Your task to perform on an android device: Show me popular games on the Play Store Image 0: 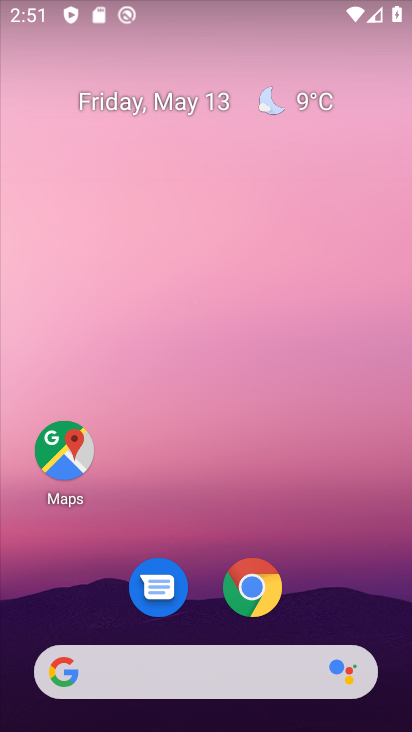
Step 0: drag from (338, 534) to (356, 319)
Your task to perform on an android device: Show me popular games on the Play Store Image 1: 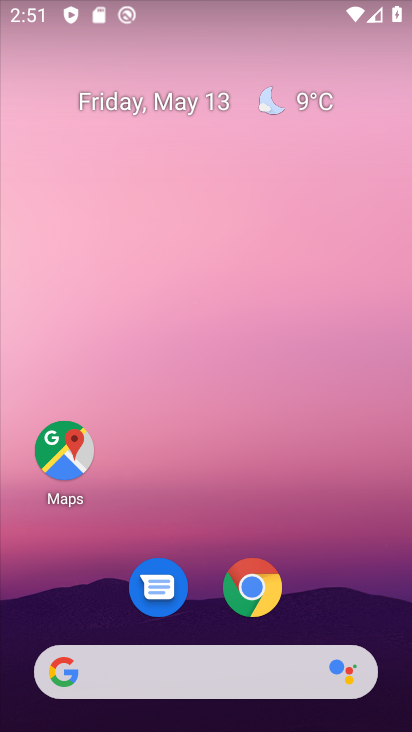
Step 1: drag from (336, 563) to (344, 289)
Your task to perform on an android device: Show me popular games on the Play Store Image 2: 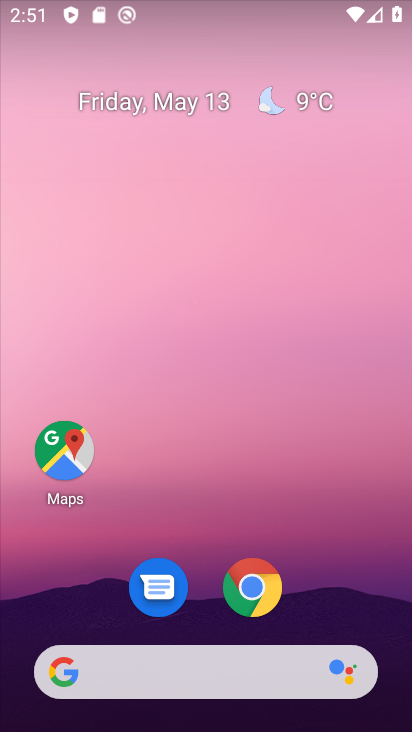
Step 2: drag from (316, 497) to (338, 126)
Your task to perform on an android device: Show me popular games on the Play Store Image 3: 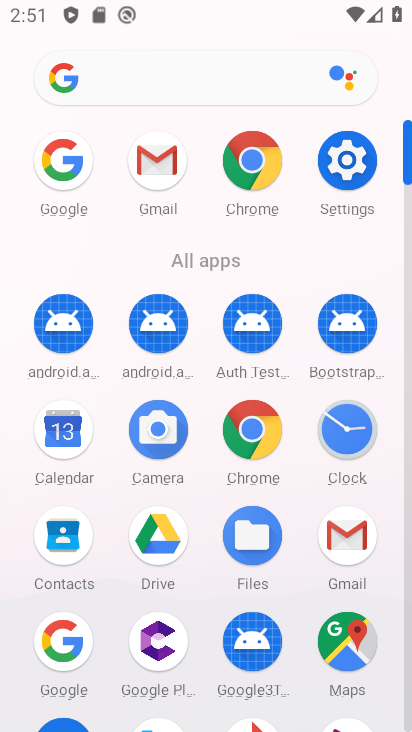
Step 3: drag from (200, 656) to (215, 237)
Your task to perform on an android device: Show me popular games on the Play Store Image 4: 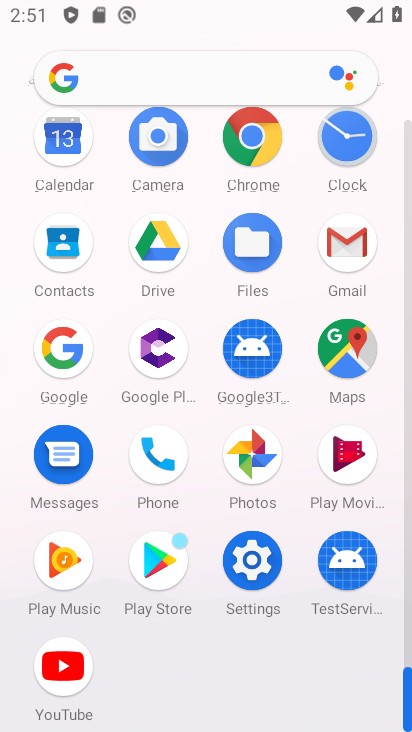
Step 4: click (152, 561)
Your task to perform on an android device: Show me popular games on the Play Store Image 5: 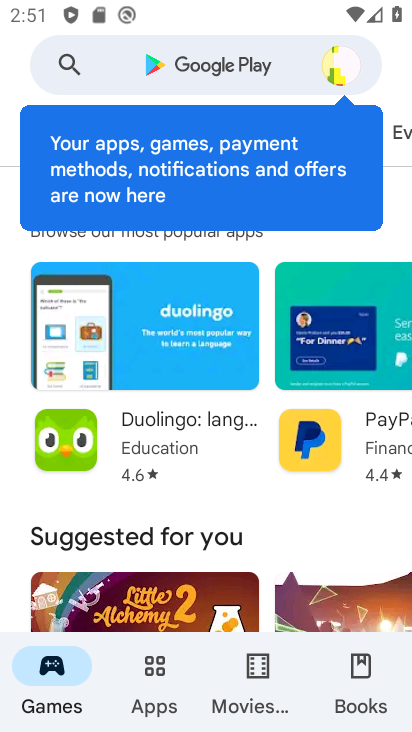
Step 5: drag from (253, 555) to (278, 269)
Your task to perform on an android device: Show me popular games on the Play Store Image 6: 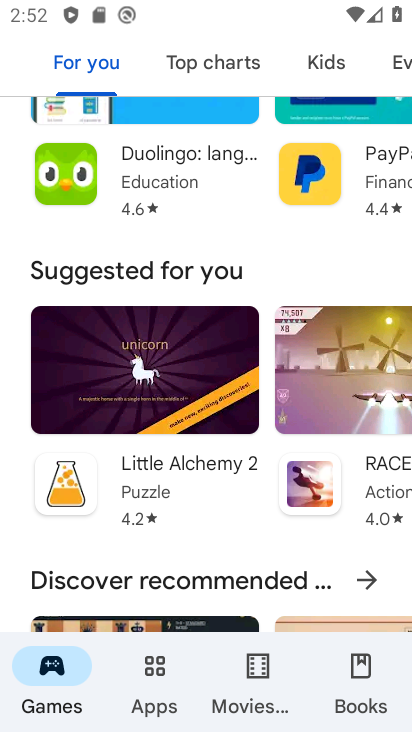
Step 6: drag from (180, 547) to (185, 219)
Your task to perform on an android device: Show me popular games on the Play Store Image 7: 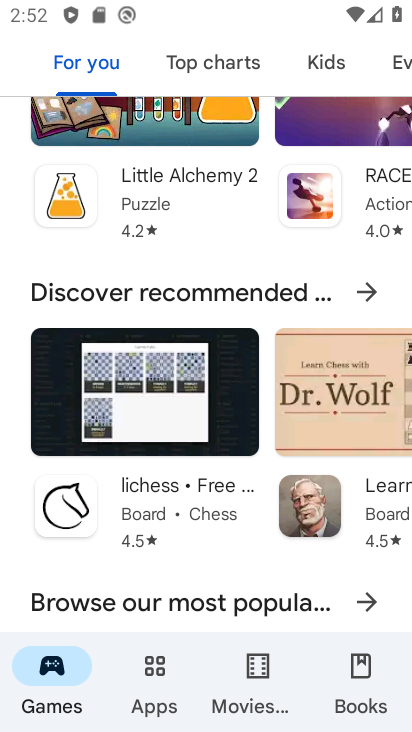
Step 7: drag from (180, 583) to (225, 254)
Your task to perform on an android device: Show me popular games on the Play Store Image 8: 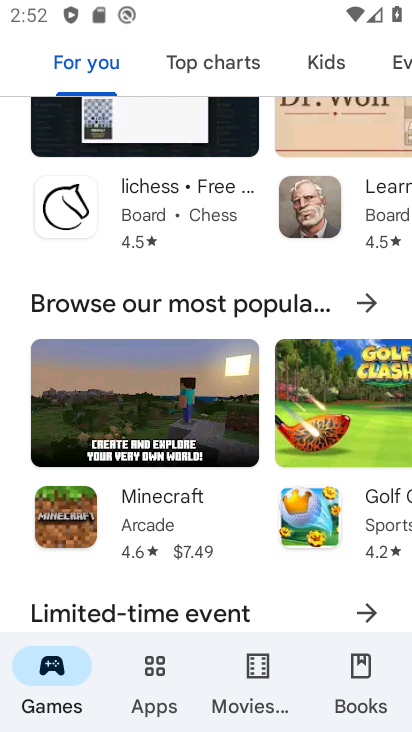
Step 8: drag from (201, 584) to (247, 234)
Your task to perform on an android device: Show me popular games on the Play Store Image 9: 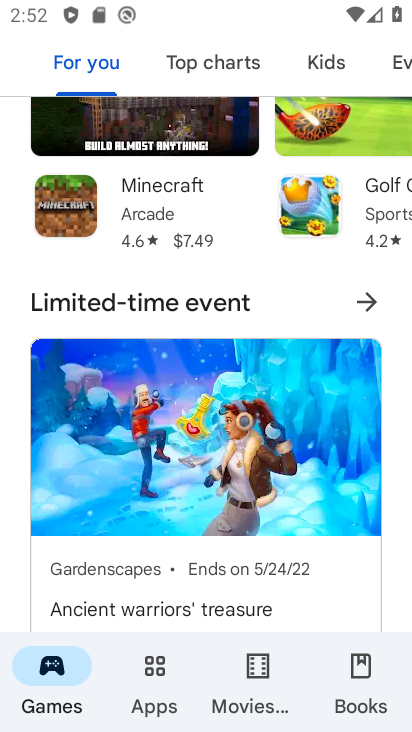
Step 9: drag from (249, 337) to (251, 593)
Your task to perform on an android device: Show me popular games on the Play Store Image 10: 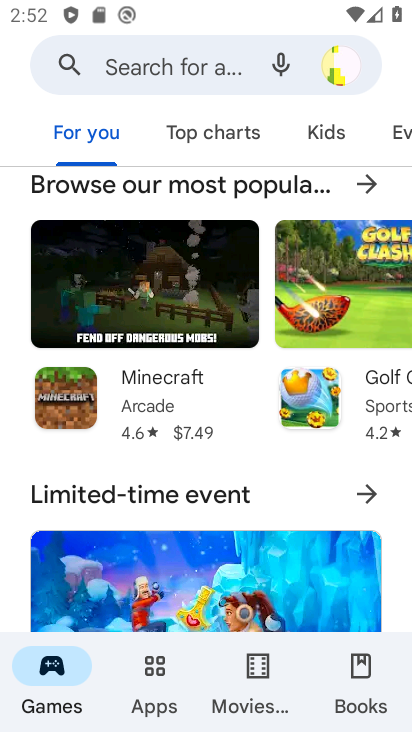
Step 10: drag from (222, 259) to (218, 598)
Your task to perform on an android device: Show me popular games on the Play Store Image 11: 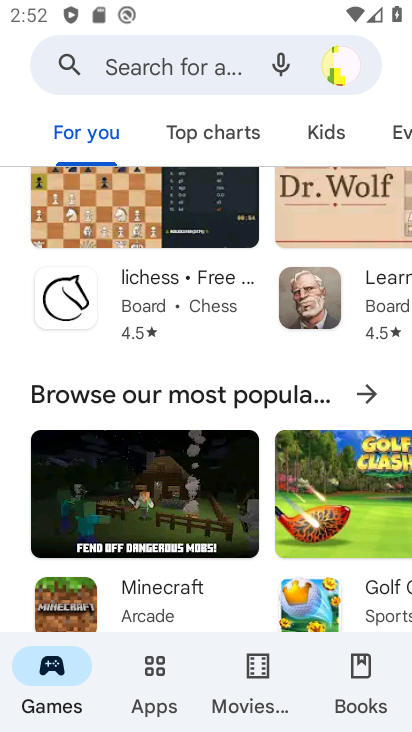
Step 11: drag from (190, 190) to (181, 584)
Your task to perform on an android device: Show me popular games on the Play Store Image 12: 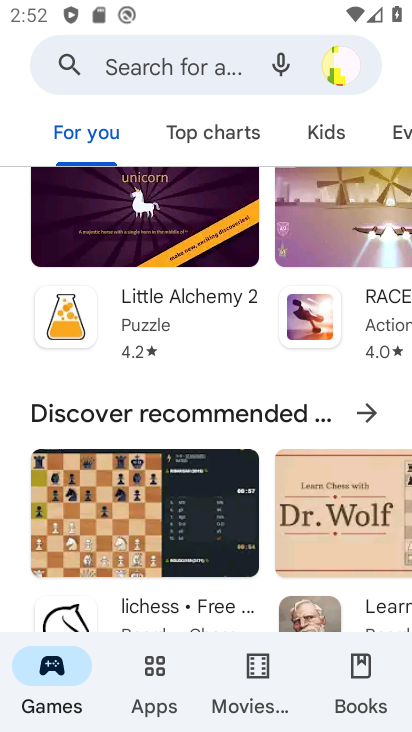
Step 12: drag from (165, 243) to (164, 513)
Your task to perform on an android device: Show me popular games on the Play Store Image 13: 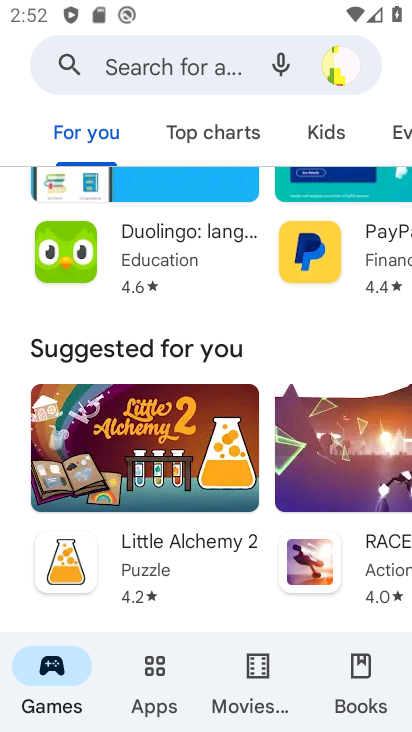
Step 13: drag from (168, 182) to (165, 509)
Your task to perform on an android device: Show me popular games on the Play Store Image 14: 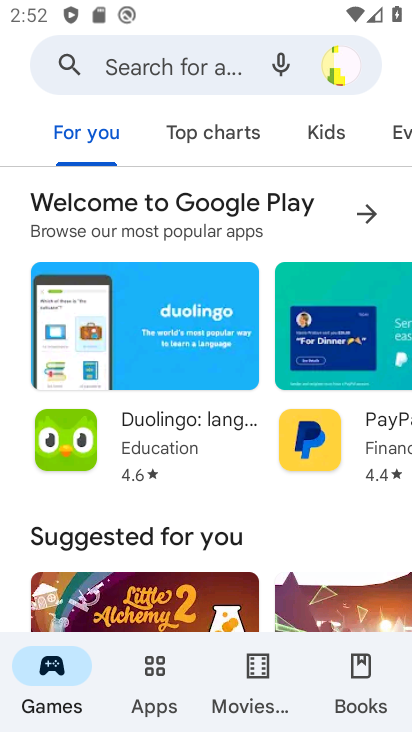
Step 14: drag from (171, 271) to (171, 570)
Your task to perform on an android device: Show me popular games on the Play Store Image 15: 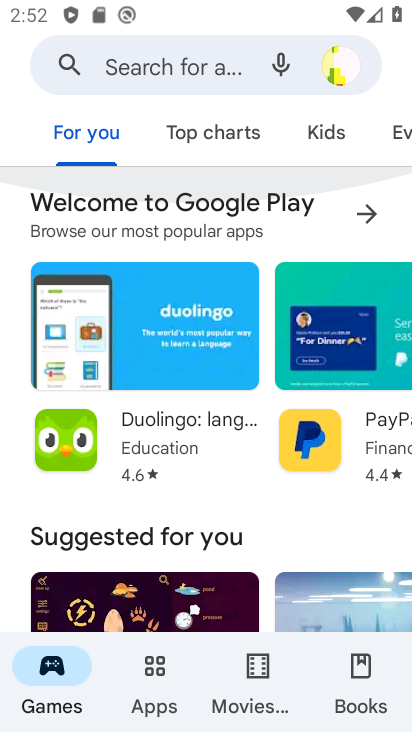
Step 15: drag from (178, 552) to (193, 311)
Your task to perform on an android device: Show me popular games on the Play Store Image 16: 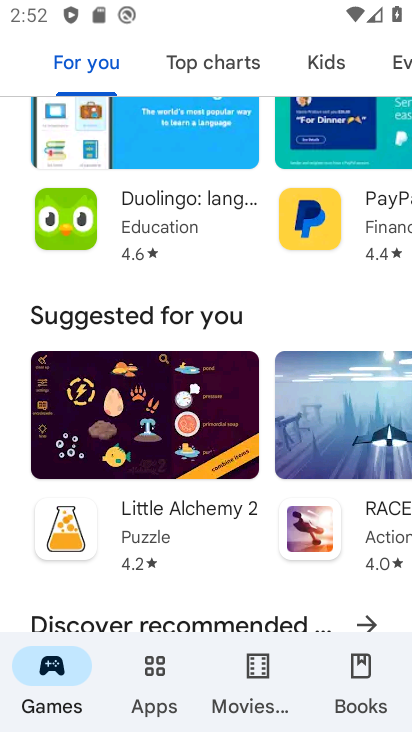
Step 16: drag from (195, 592) to (219, 254)
Your task to perform on an android device: Show me popular games on the Play Store Image 17: 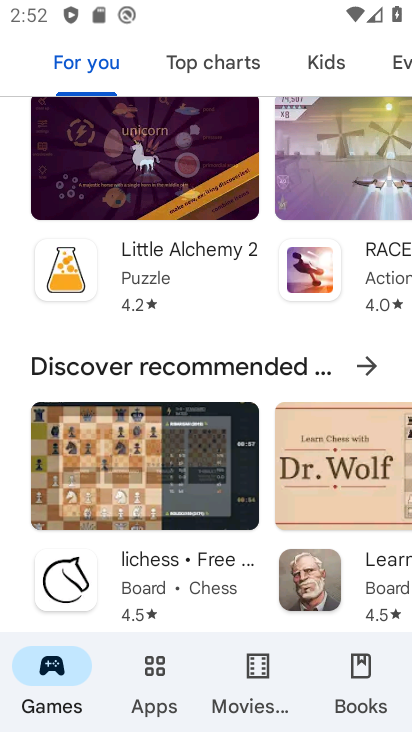
Step 17: drag from (224, 314) to (234, 180)
Your task to perform on an android device: Show me popular games on the Play Store Image 18: 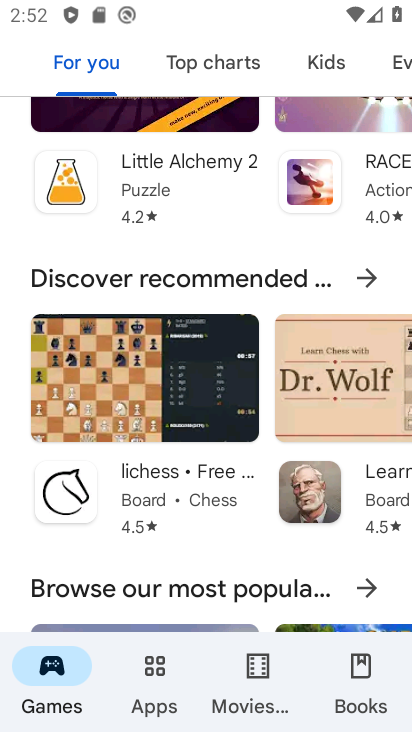
Step 18: drag from (217, 498) to (255, 239)
Your task to perform on an android device: Show me popular games on the Play Store Image 19: 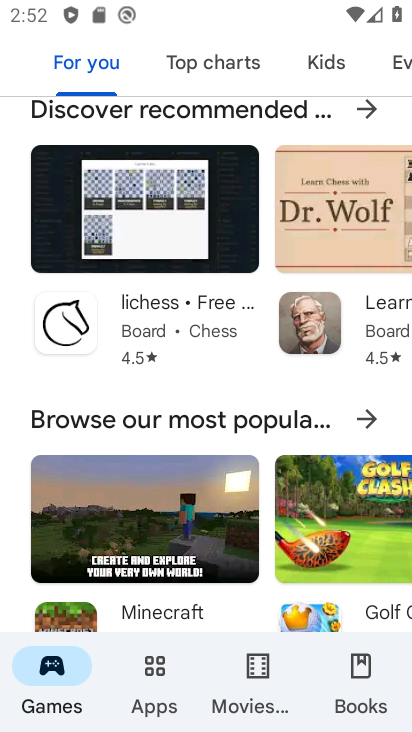
Step 19: click (241, 434)
Your task to perform on an android device: Show me popular games on the Play Store Image 20: 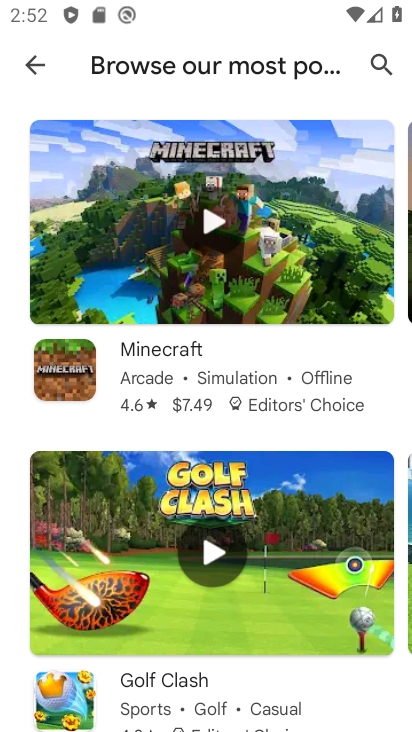
Step 20: task complete